Your task to perform on an android device: Is it going to rain tomorrow? Image 0: 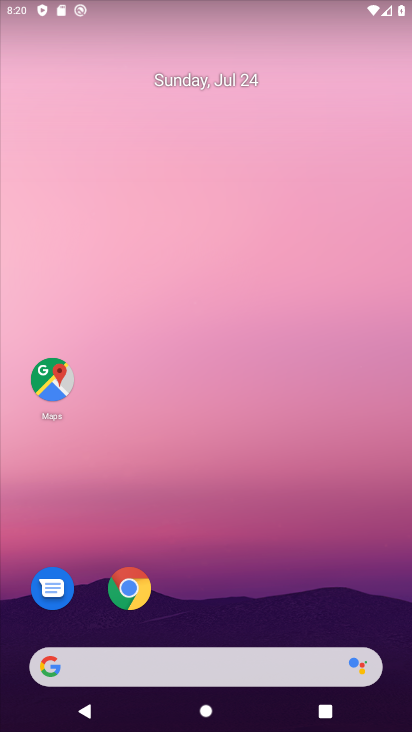
Step 0: click (131, 585)
Your task to perform on an android device: Is it going to rain tomorrow? Image 1: 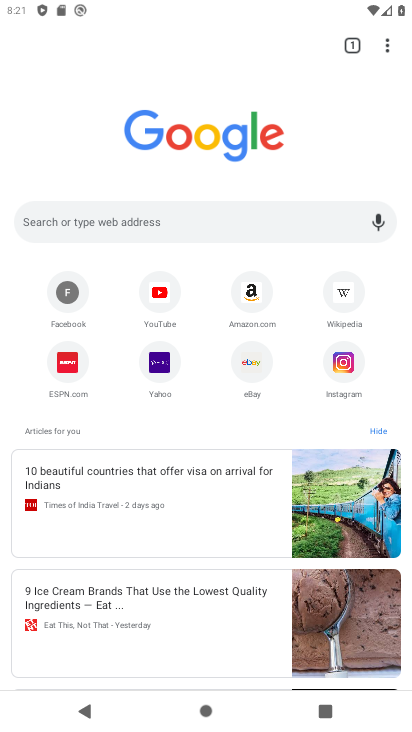
Step 1: click (226, 215)
Your task to perform on an android device: Is it going to rain tomorrow? Image 2: 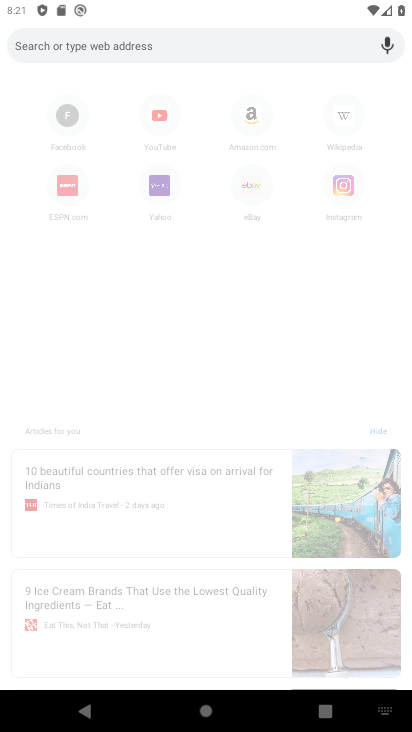
Step 2: type "Is it going to rain tomorrow? "
Your task to perform on an android device: Is it going to rain tomorrow? Image 3: 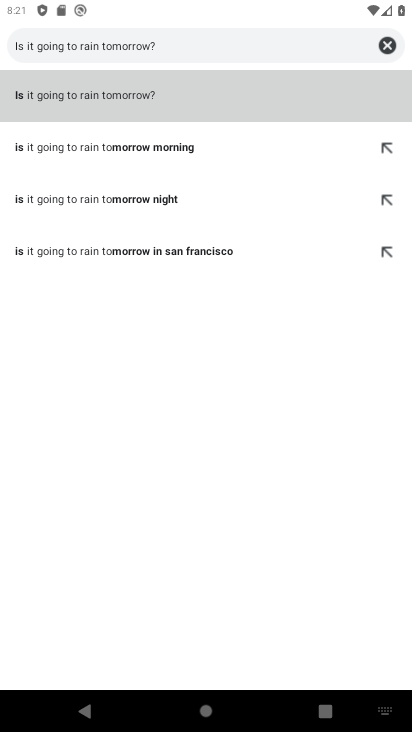
Step 3: click (289, 81)
Your task to perform on an android device: Is it going to rain tomorrow? Image 4: 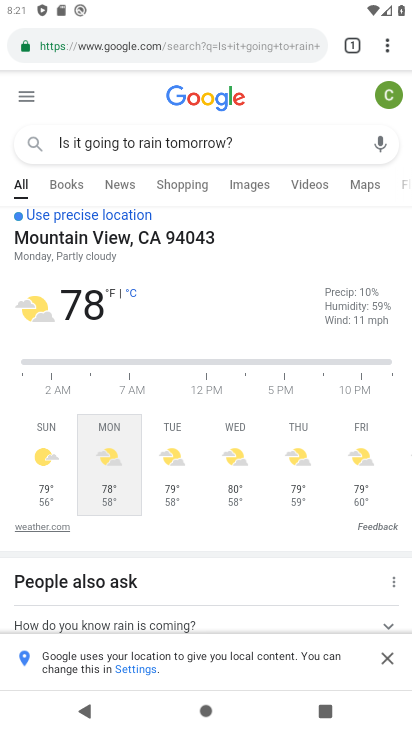
Step 4: task complete